Your task to perform on an android device: Open CNN.com Image 0: 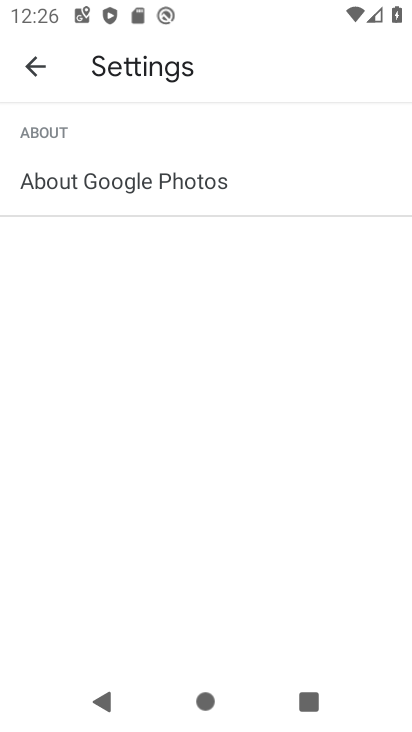
Step 0: press home button
Your task to perform on an android device: Open CNN.com Image 1: 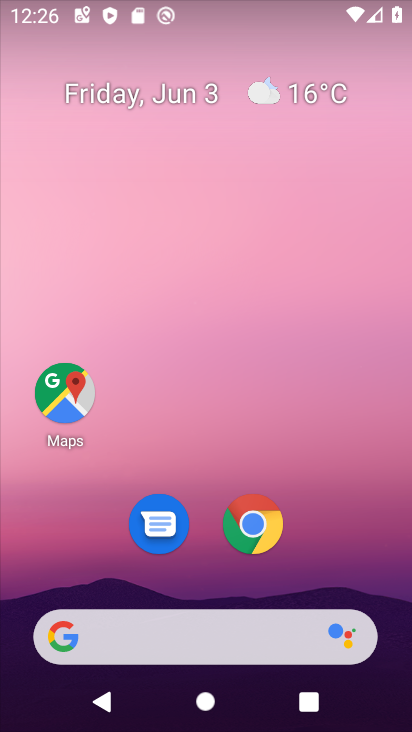
Step 1: click (271, 650)
Your task to perform on an android device: Open CNN.com Image 2: 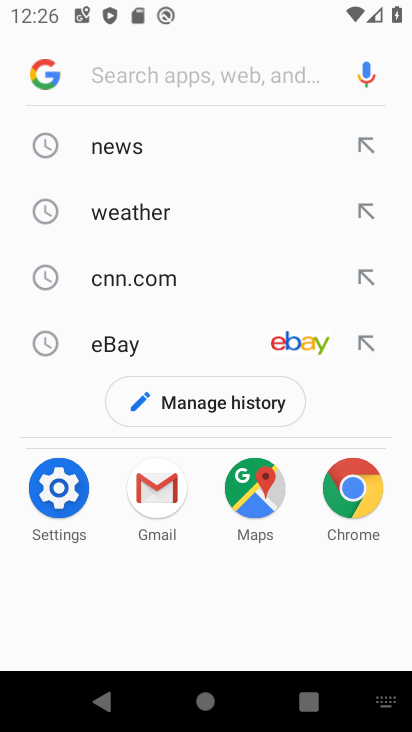
Step 2: type "cnn.com"
Your task to perform on an android device: Open CNN.com Image 3: 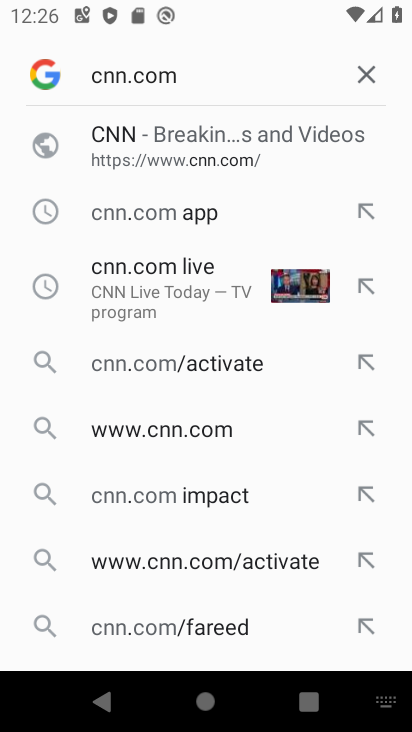
Step 3: click (176, 149)
Your task to perform on an android device: Open CNN.com Image 4: 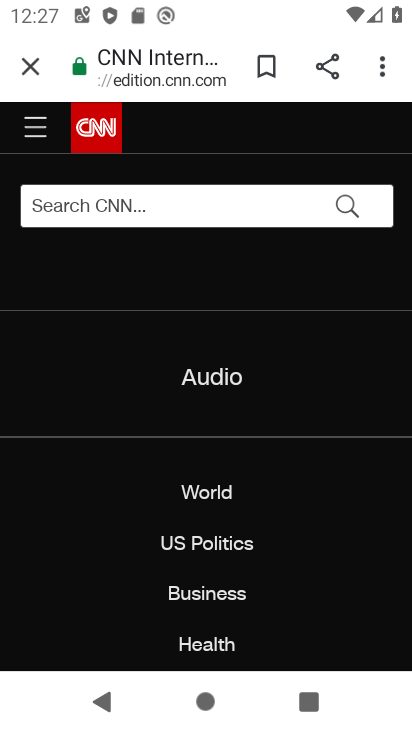
Step 4: task complete